Your task to perform on an android device: set default search engine in the chrome app Image 0: 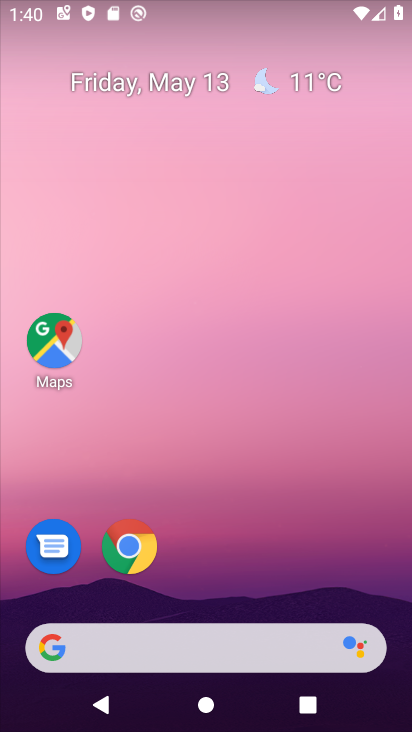
Step 0: drag from (261, 616) to (268, 173)
Your task to perform on an android device: set default search engine in the chrome app Image 1: 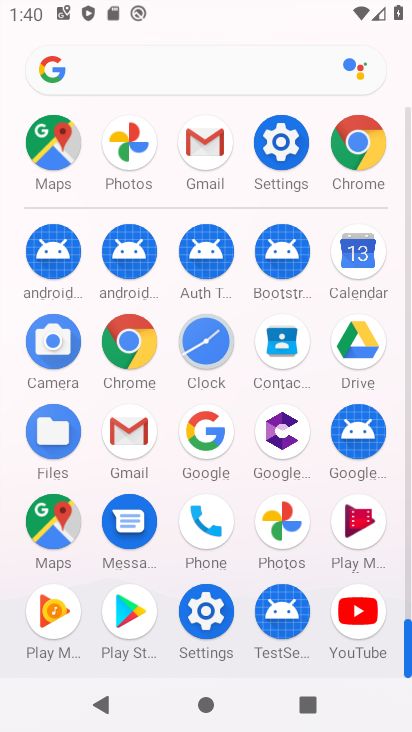
Step 1: click (376, 155)
Your task to perform on an android device: set default search engine in the chrome app Image 2: 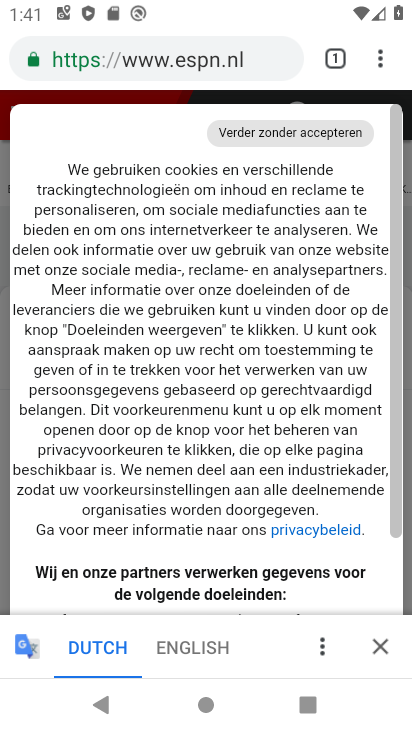
Step 2: click (381, 61)
Your task to perform on an android device: set default search engine in the chrome app Image 3: 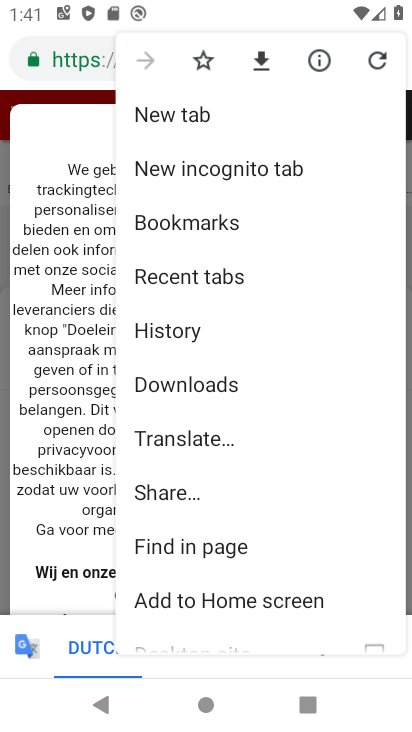
Step 3: drag from (262, 503) to (338, 125)
Your task to perform on an android device: set default search engine in the chrome app Image 4: 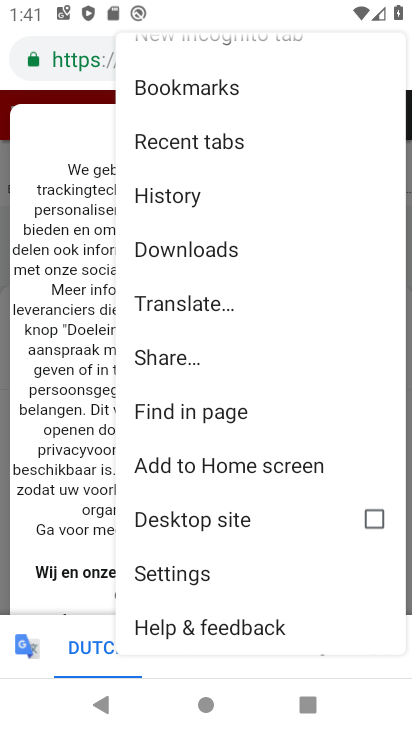
Step 4: click (202, 564)
Your task to perform on an android device: set default search engine in the chrome app Image 5: 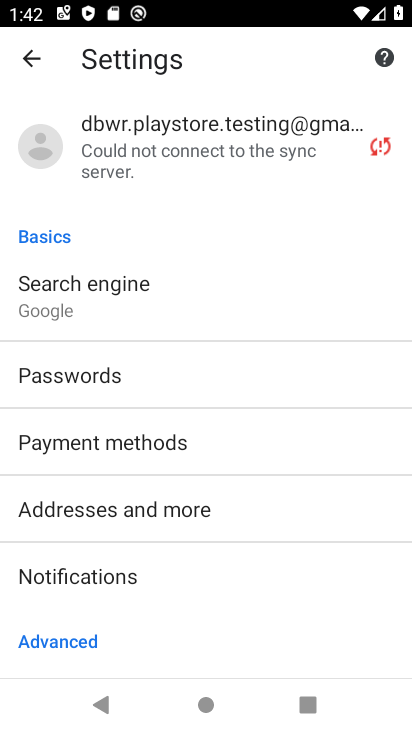
Step 5: click (205, 289)
Your task to perform on an android device: set default search engine in the chrome app Image 6: 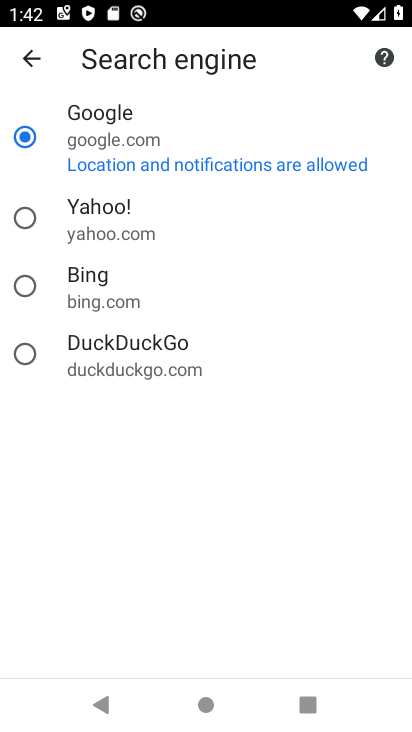
Step 6: task complete